Your task to perform on an android device: Go to calendar. Show me events next week Image 0: 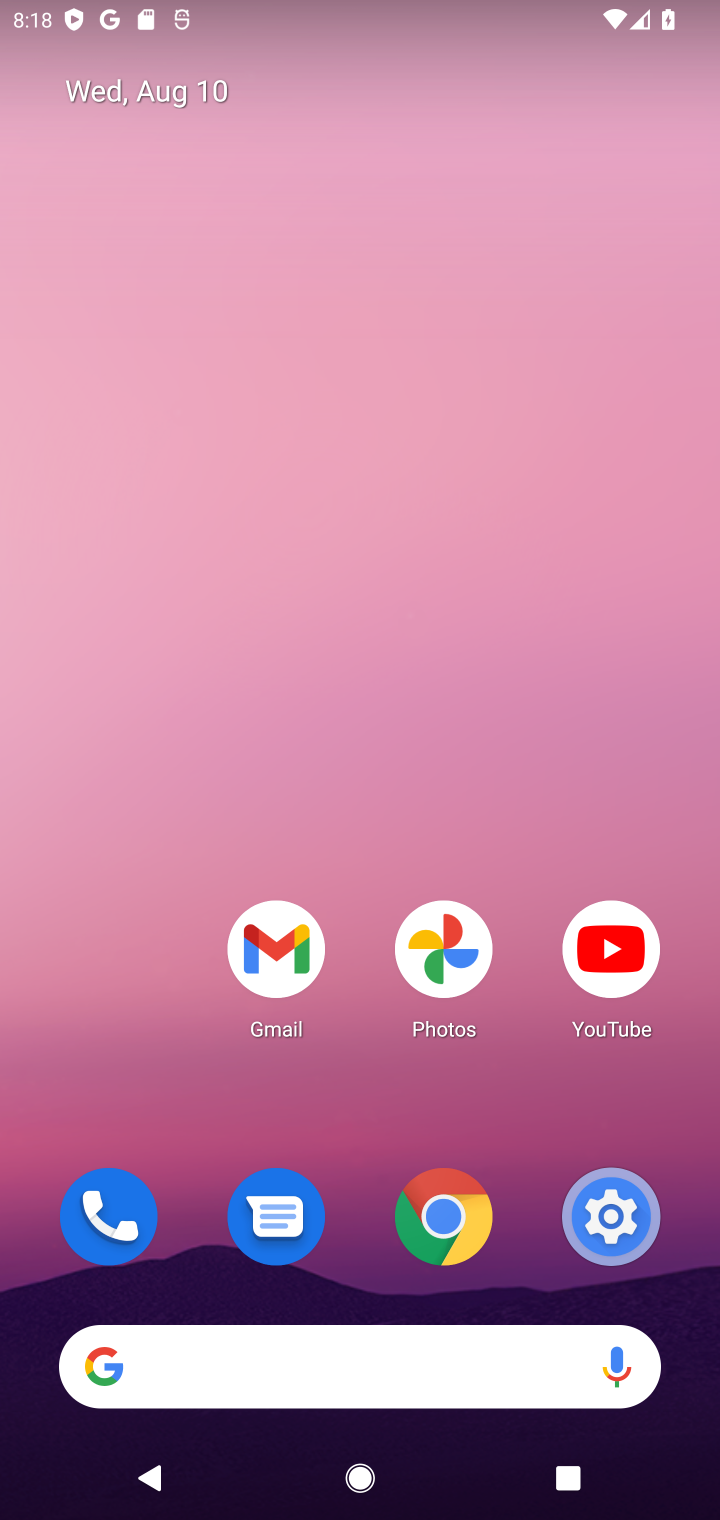
Step 0: drag from (239, 964) to (582, 239)
Your task to perform on an android device: Go to calendar. Show me events next week Image 1: 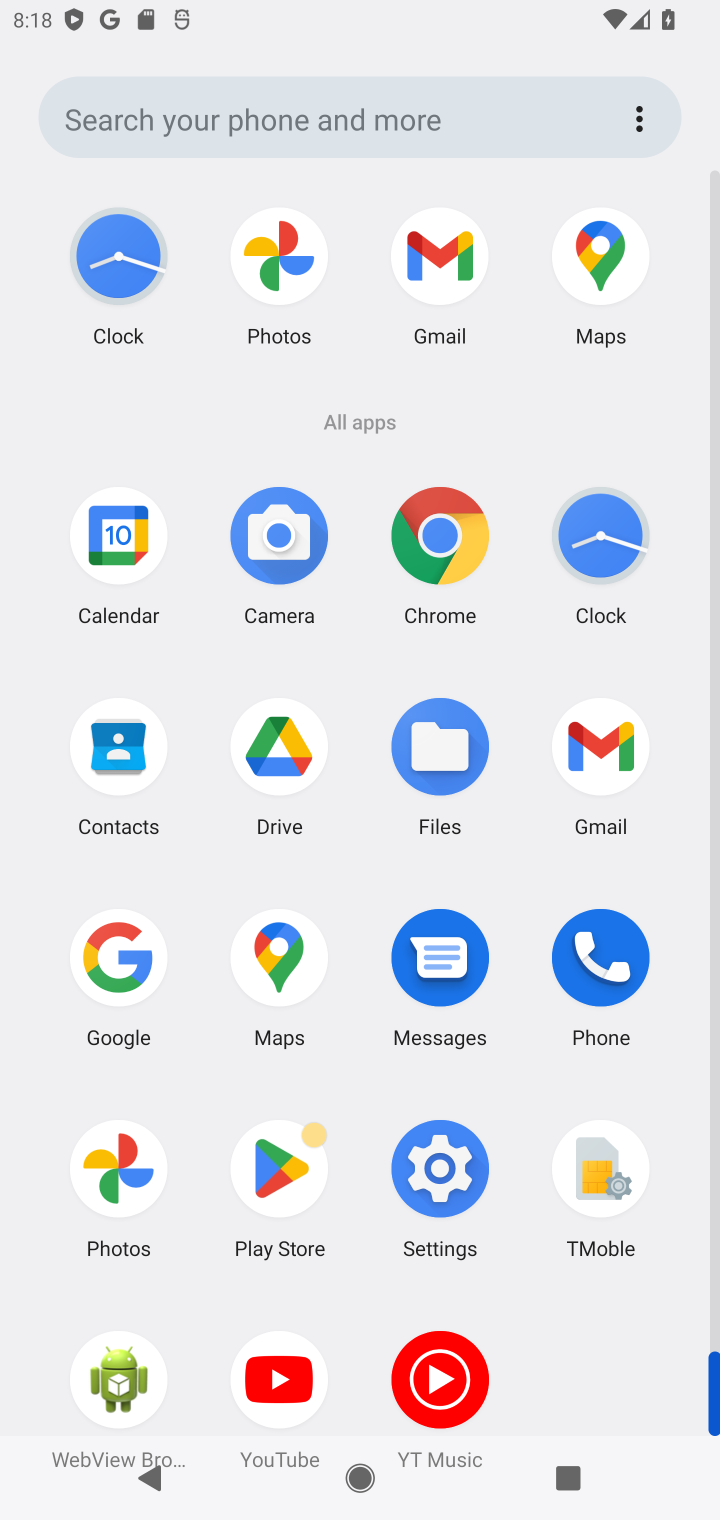
Step 1: click (103, 570)
Your task to perform on an android device: Go to calendar. Show me events next week Image 2: 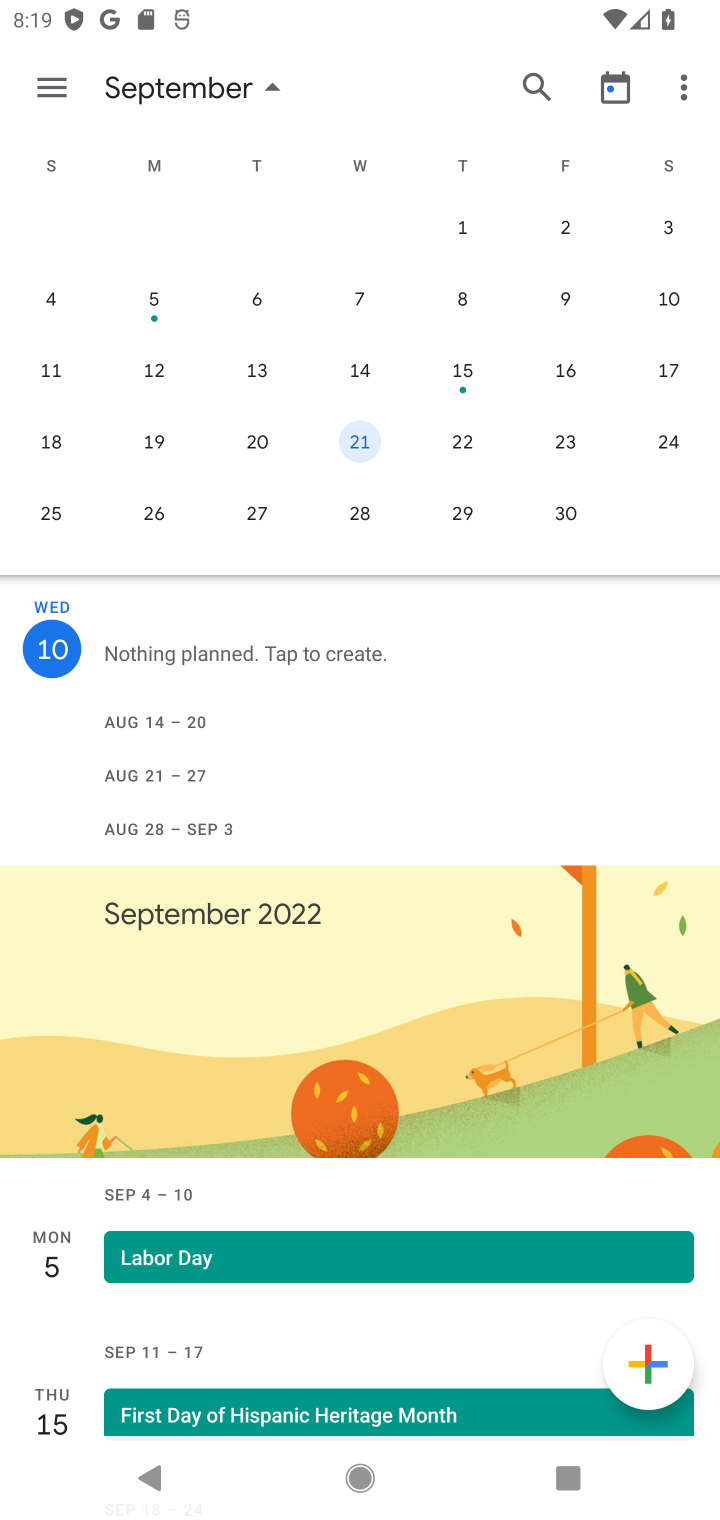
Step 2: task complete